Your task to perform on an android device: Open the calendar app, open the side menu, and click the "Day" option Image 0: 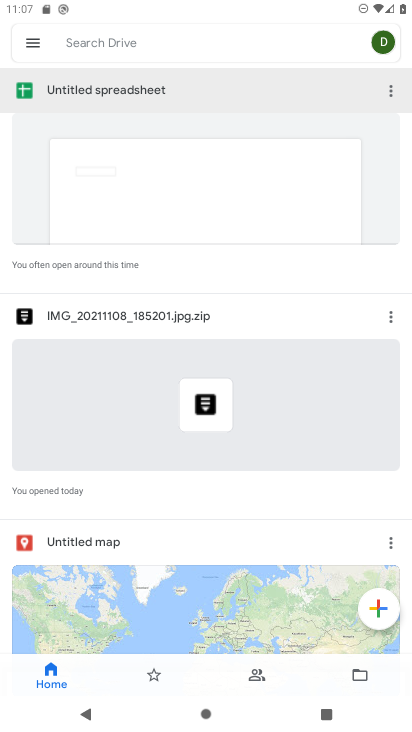
Step 0: press home button
Your task to perform on an android device: Open the calendar app, open the side menu, and click the "Day" option Image 1: 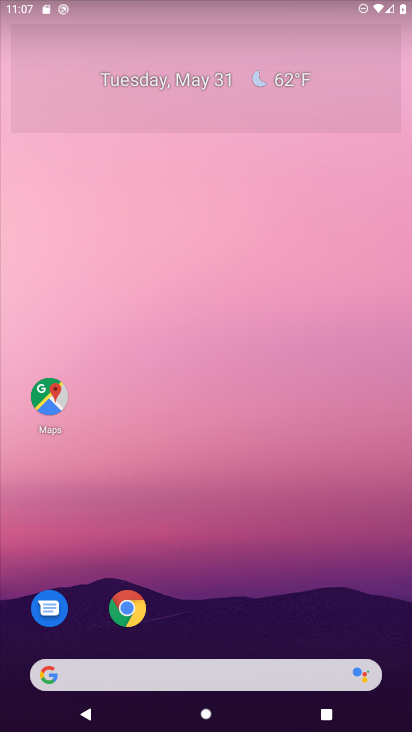
Step 1: drag from (285, 600) to (275, 114)
Your task to perform on an android device: Open the calendar app, open the side menu, and click the "Day" option Image 2: 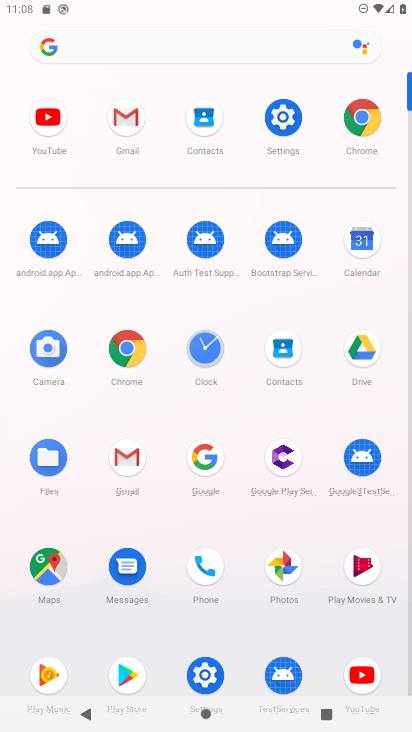
Step 2: click (361, 244)
Your task to perform on an android device: Open the calendar app, open the side menu, and click the "Day" option Image 3: 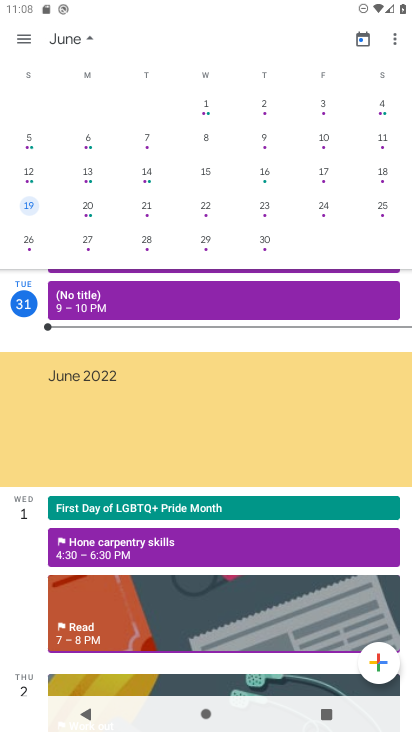
Step 3: click (22, 28)
Your task to perform on an android device: Open the calendar app, open the side menu, and click the "Day" option Image 4: 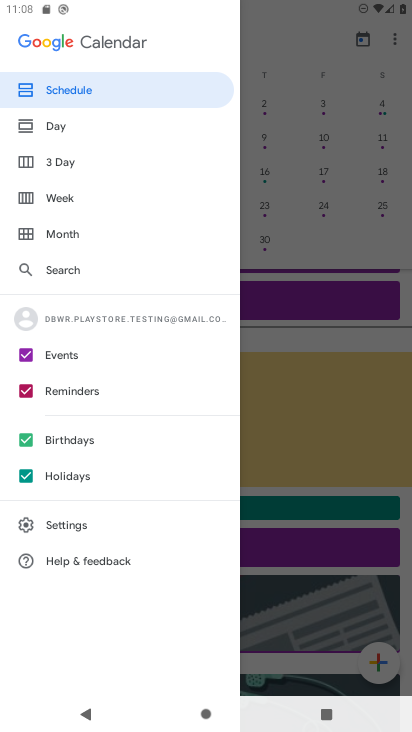
Step 4: click (55, 127)
Your task to perform on an android device: Open the calendar app, open the side menu, and click the "Day" option Image 5: 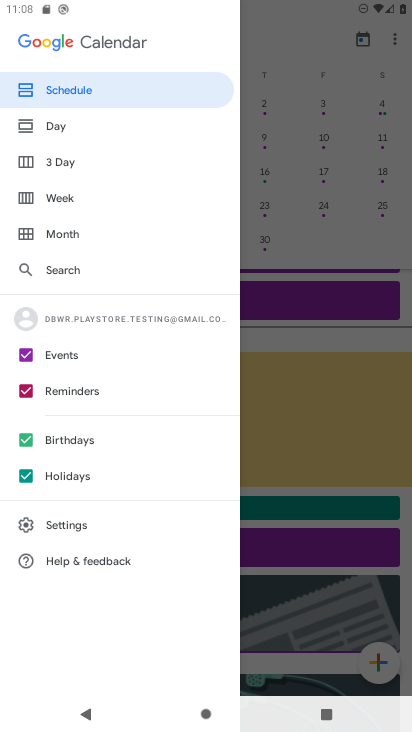
Step 5: click (55, 131)
Your task to perform on an android device: Open the calendar app, open the side menu, and click the "Day" option Image 6: 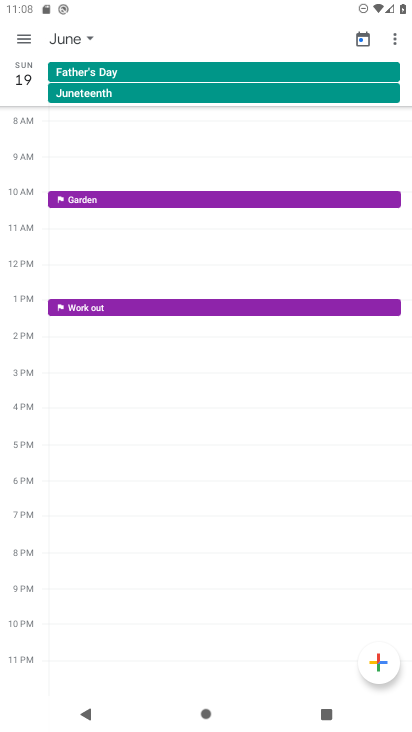
Step 6: task complete